Your task to perform on an android device: turn on notifications settings in the gmail app Image 0: 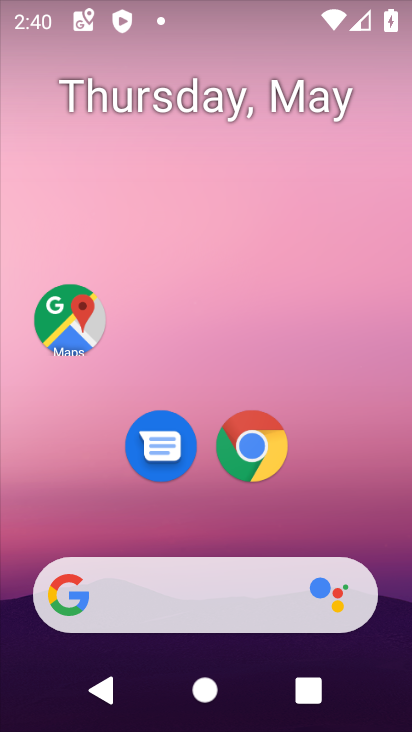
Step 0: drag from (214, 532) to (170, 81)
Your task to perform on an android device: turn on notifications settings in the gmail app Image 1: 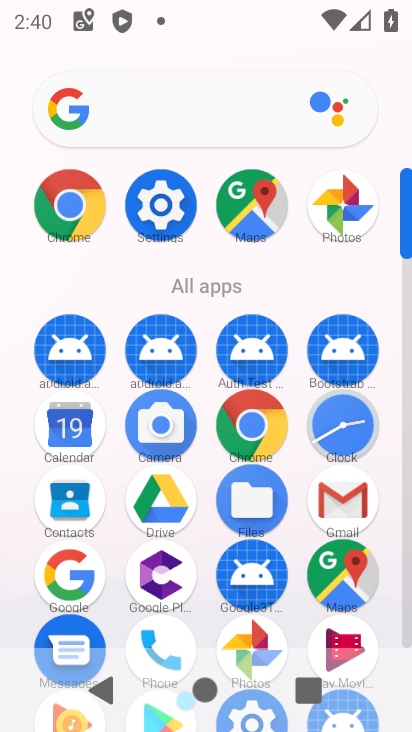
Step 1: click (336, 509)
Your task to perform on an android device: turn on notifications settings in the gmail app Image 2: 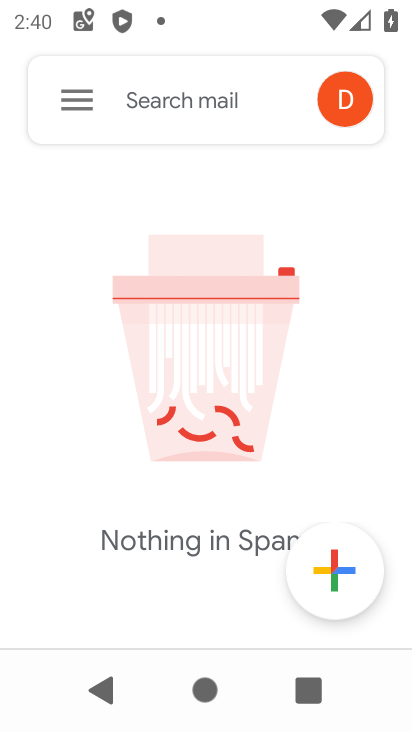
Step 2: click (90, 113)
Your task to perform on an android device: turn on notifications settings in the gmail app Image 3: 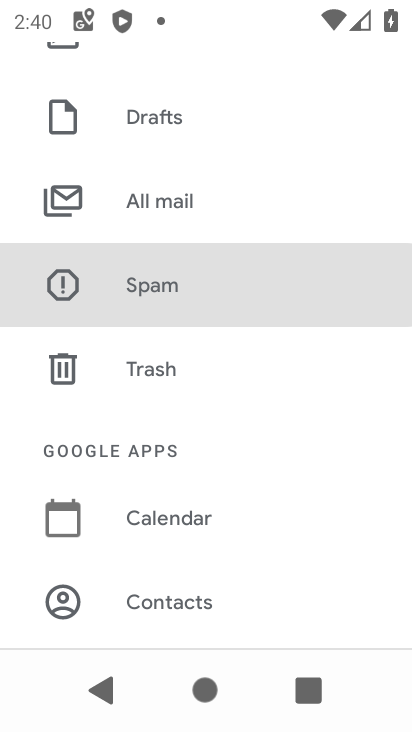
Step 3: drag from (224, 528) to (182, 233)
Your task to perform on an android device: turn on notifications settings in the gmail app Image 4: 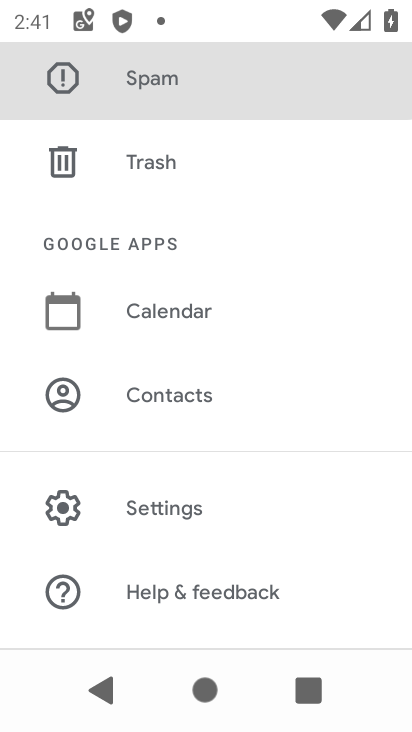
Step 4: click (186, 493)
Your task to perform on an android device: turn on notifications settings in the gmail app Image 5: 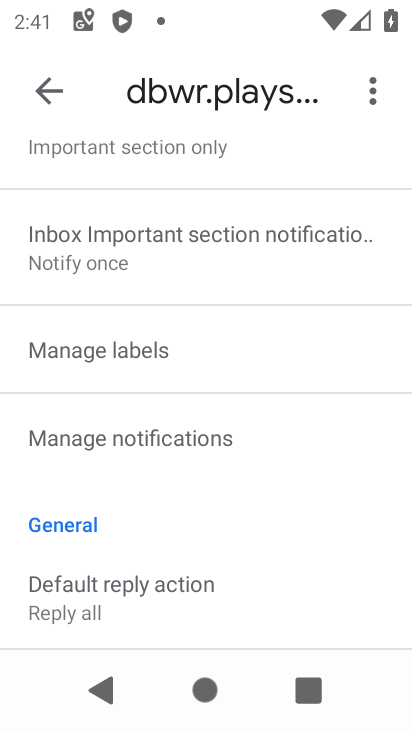
Step 5: click (110, 442)
Your task to perform on an android device: turn on notifications settings in the gmail app Image 6: 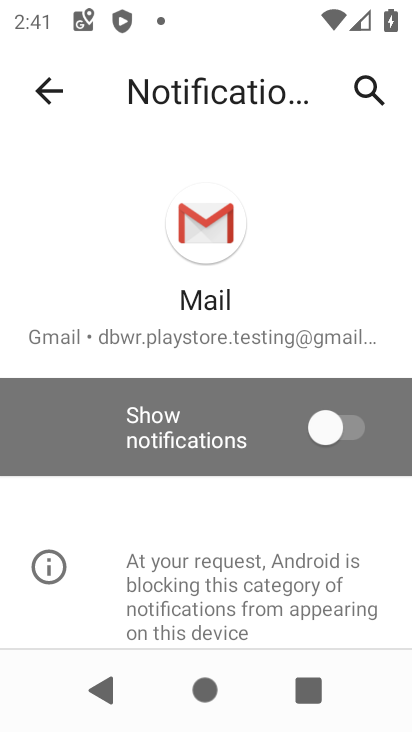
Step 6: click (340, 436)
Your task to perform on an android device: turn on notifications settings in the gmail app Image 7: 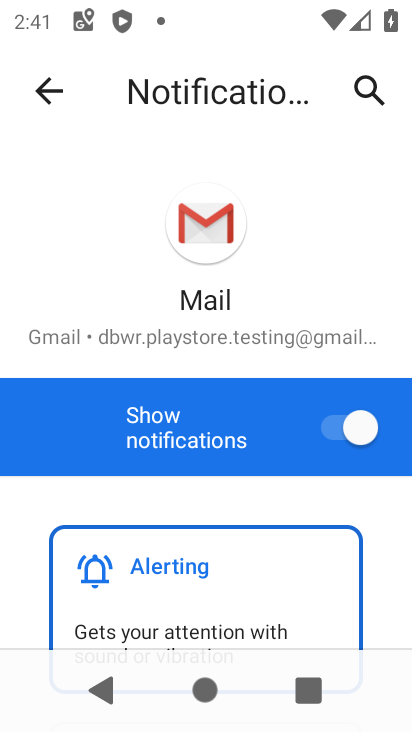
Step 7: task complete